Your task to perform on an android device: turn on notifications settings in the gmail app Image 0: 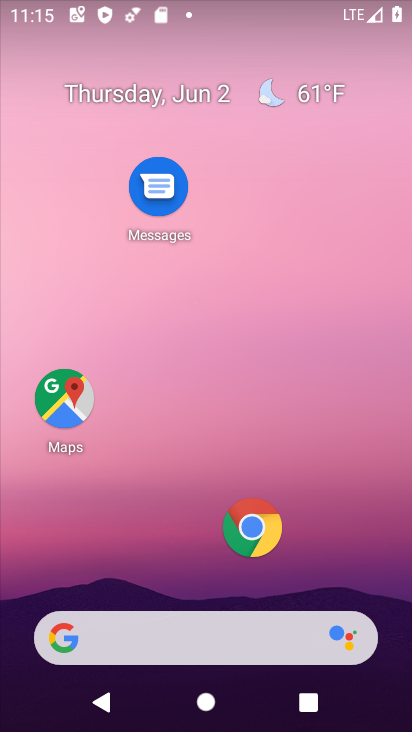
Step 0: press home button
Your task to perform on an android device: turn on notifications settings in the gmail app Image 1: 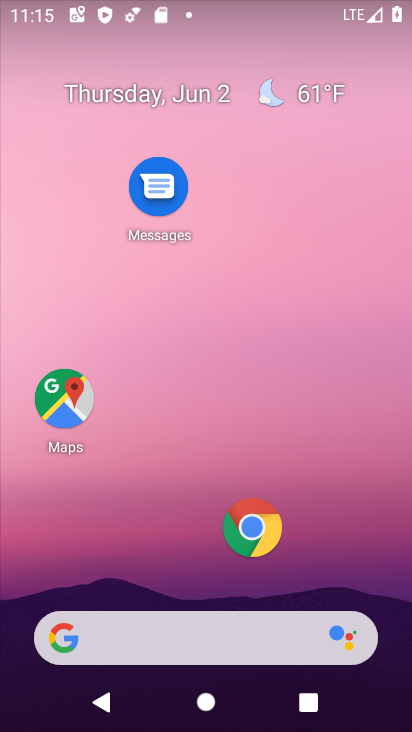
Step 1: drag from (213, 586) to (227, 34)
Your task to perform on an android device: turn on notifications settings in the gmail app Image 2: 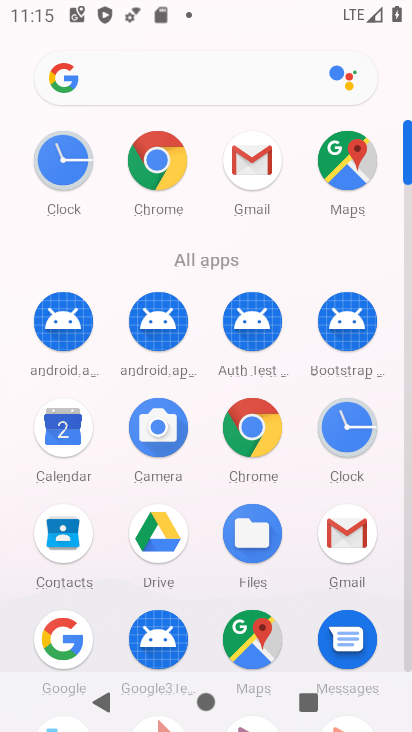
Step 2: click (345, 518)
Your task to perform on an android device: turn on notifications settings in the gmail app Image 3: 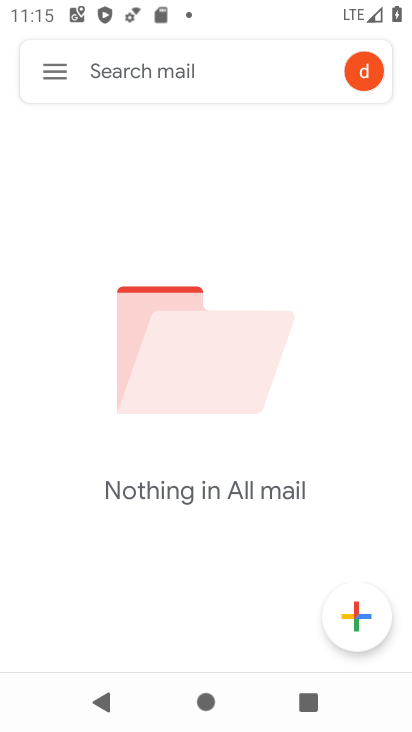
Step 3: click (56, 71)
Your task to perform on an android device: turn on notifications settings in the gmail app Image 4: 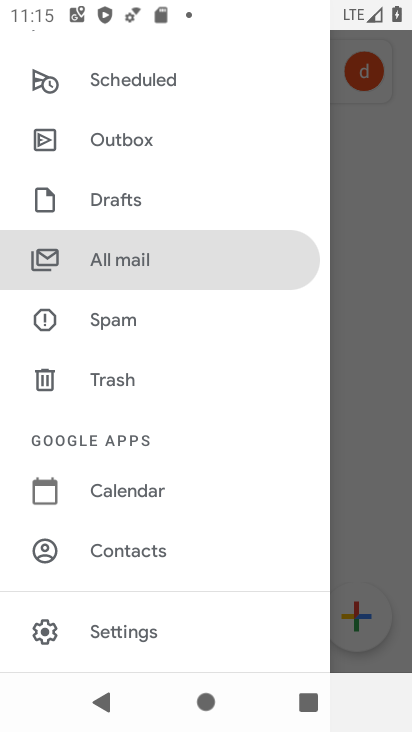
Step 4: click (177, 627)
Your task to perform on an android device: turn on notifications settings in the gmail app Image 5: 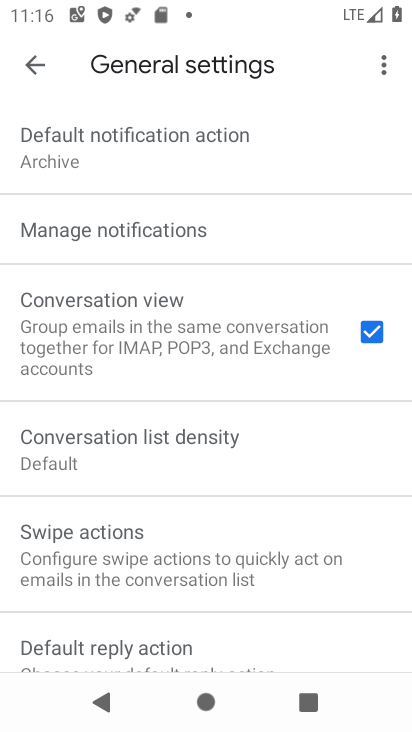
Step 5: click (155, 244)
Your task to perform on an android device: turn on notifications settings in the gmail app Image 6: 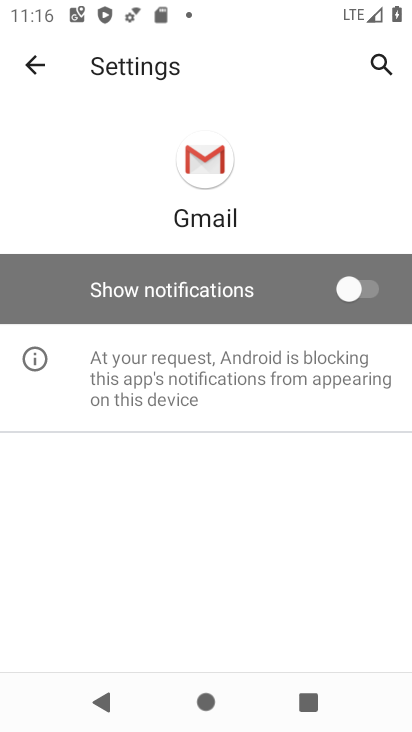
Step 6: click (358, 284)
Your task to perform on an android device: turn on notifications settings in the gmail app Image 7: 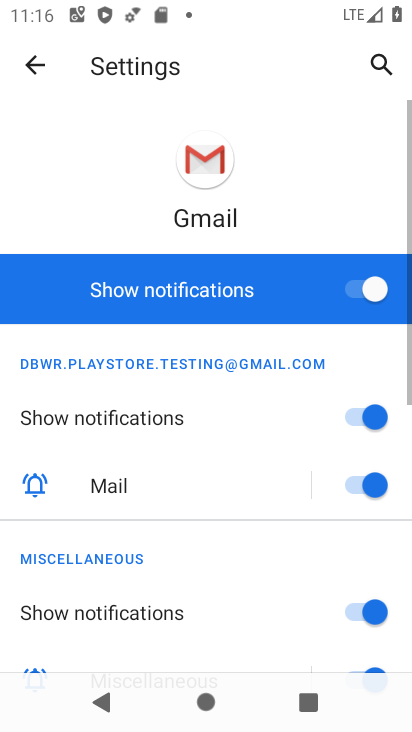
Step 7: task complete